Your task to perform on an android device: Go to Google maps Image 0: 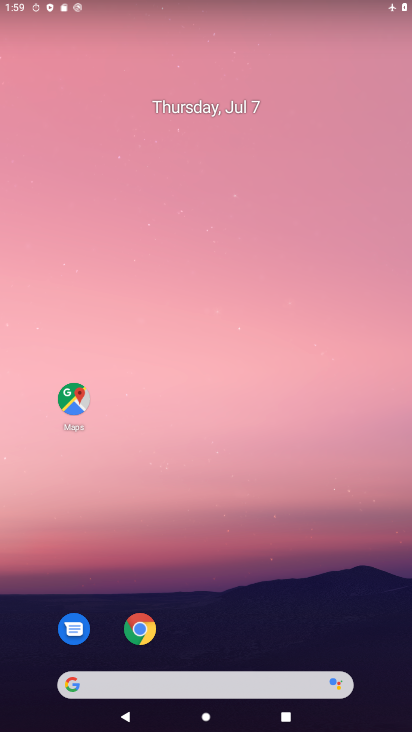
Step 0: drag from (312, 630) to (375, 64)
Your task to perform on an android device: Go to Google maps Image 1: 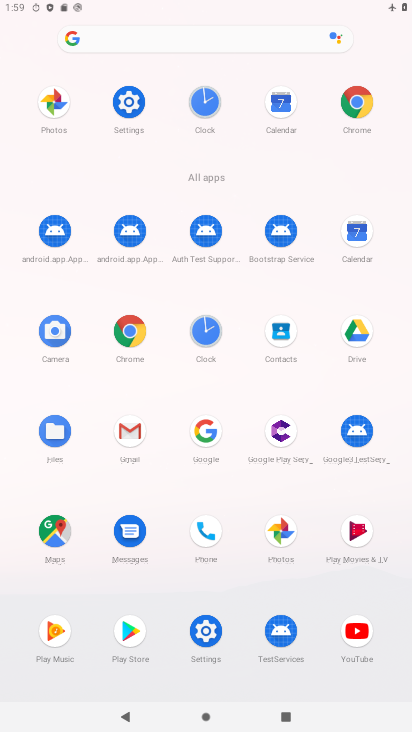
Step 1: click (48, 535)
Your task to perform on an android device: Go to Google maps Image 2: 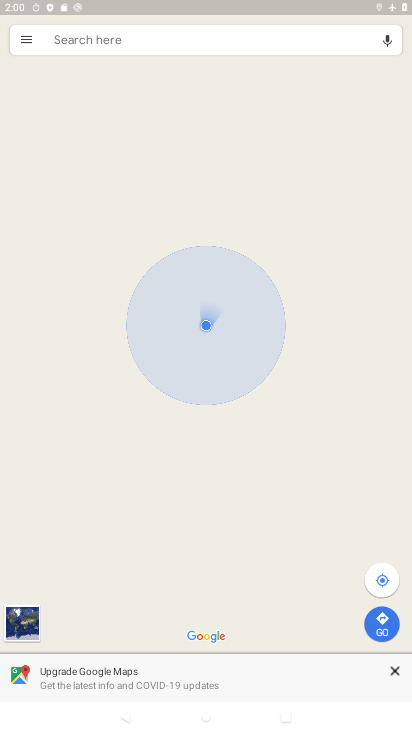
Step 2: task complete